Your task to perform on an android device: turn on the 12-hour format for clock Image 0: 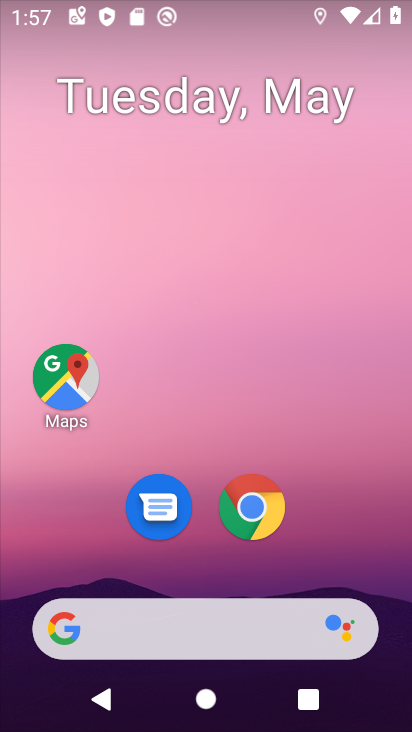
Step 0: drag from (287, 541) to (280, 33)
Your task to perform on an android device: turn on the 12-hour format for clock Image 1: 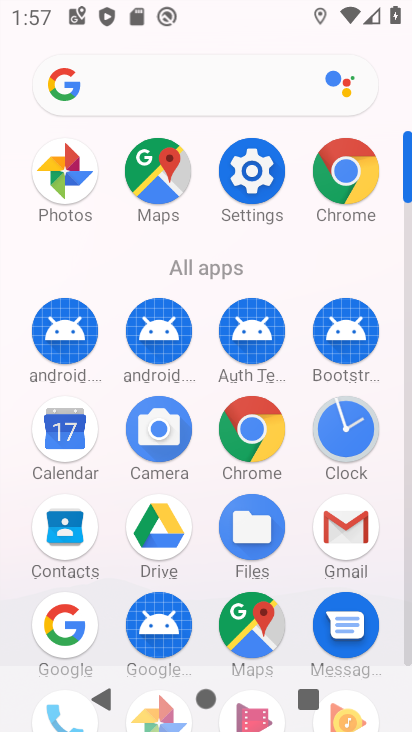
Step 1: click (343, 418)
Your task to perform on an android device: turn on the 12-hour format for clock Image 2: 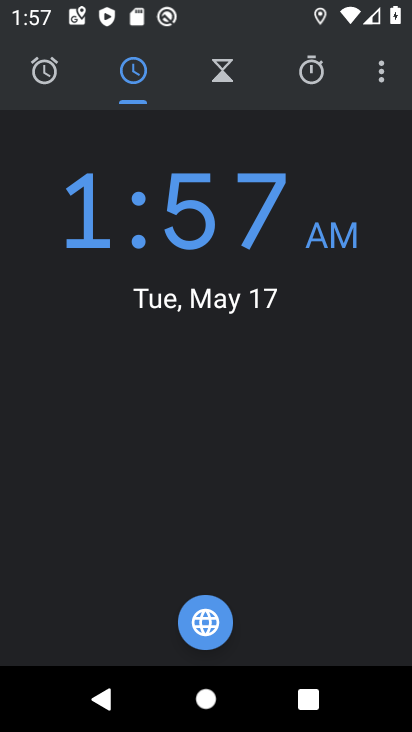
Step 2: click (384, 68)
Your task to perform on an android device: turn on the 12-hour format for clock Image 3: 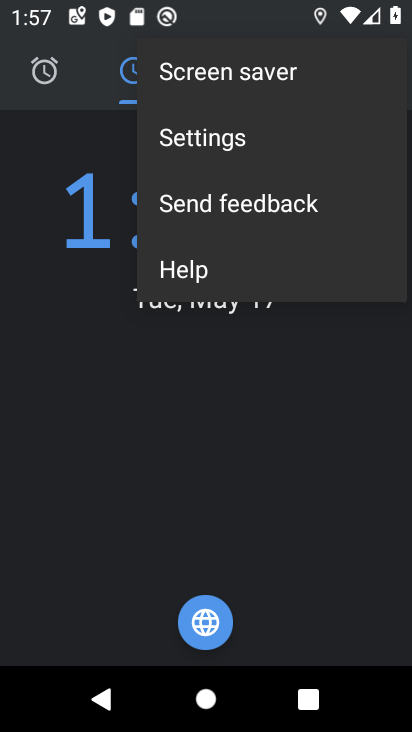
Step 3: click (252, 144)
Your task to perform on an android device: turn on the 12-hour format for clock Image 4: 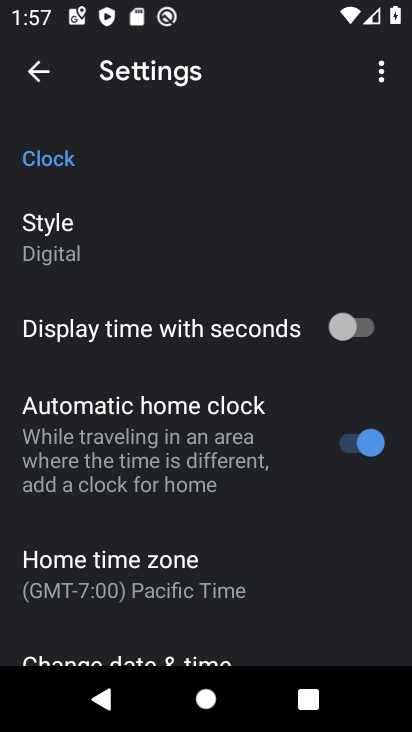
Step 4: drag from (201, 557) to (271, 240)
Your task to perform on an android device: turn on the 12-hour format for clock Image 5: 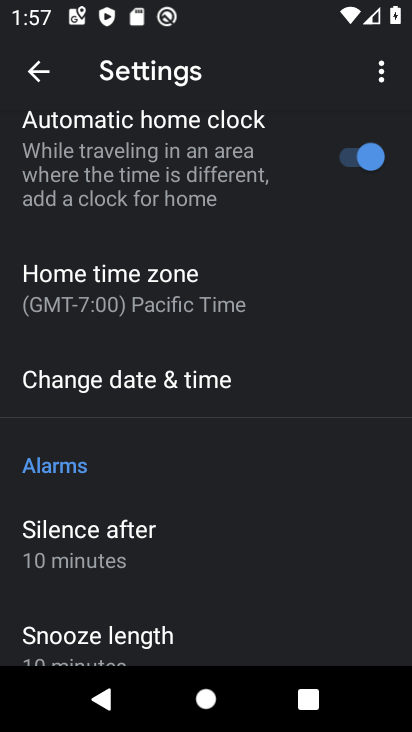
Step 5: click (197, 467)
Your task to perform on an android device: turn on the 12-hour format for clock Image 6: 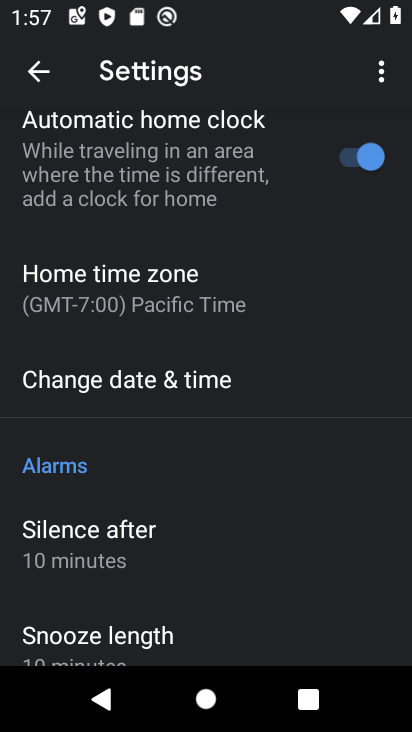
Step 6: click (191, 391)
Your task to perform on an android device: turn on the 12-hour format for clock Image 7: 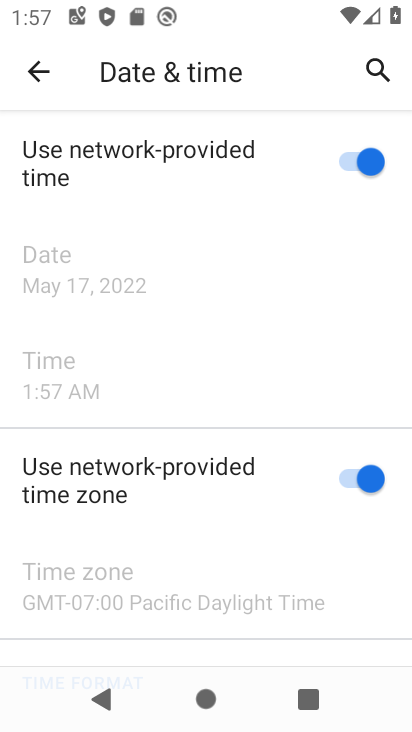
Step 7: task complete